Your task to perform on an android device: toggle show notifications on the lock screen Image 0: 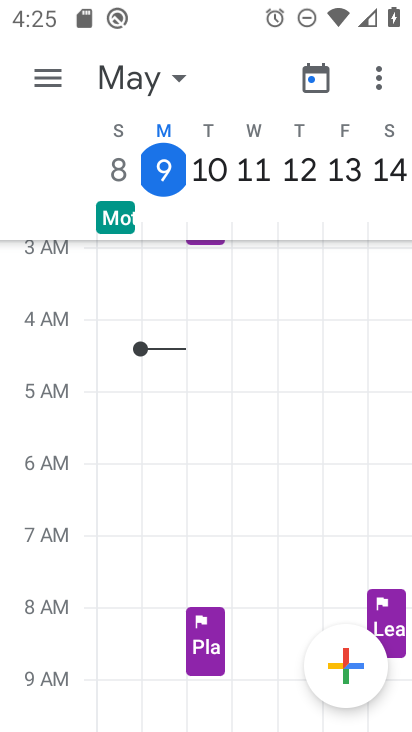
Step 0: press home button
Your task to perform on an android device: toggle show notifications on the lock screen Image 1: 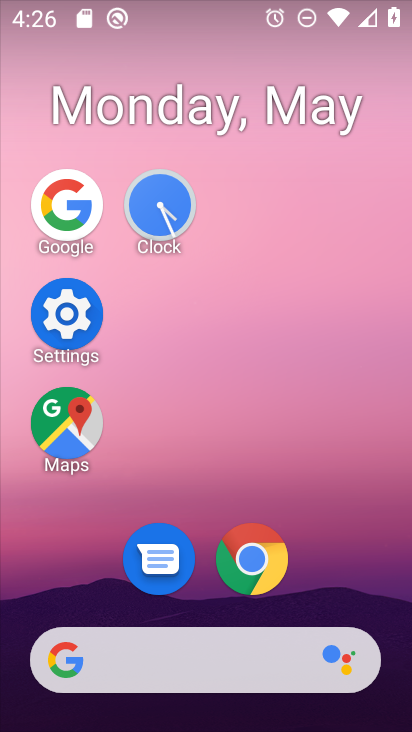
Step 1: click (67, 317)
Your task to perform on an android device: toggle show notifications on the lock screen Image 2: 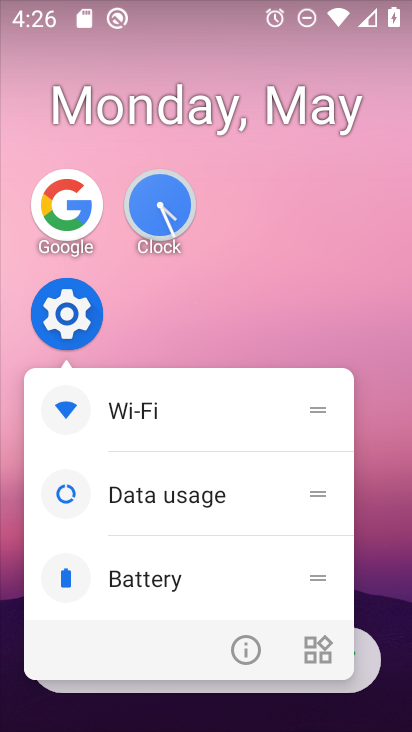
Step 2: click (64, 311)
Your task to perform on an android device: toggle show notifications on the lock screen Image 3: 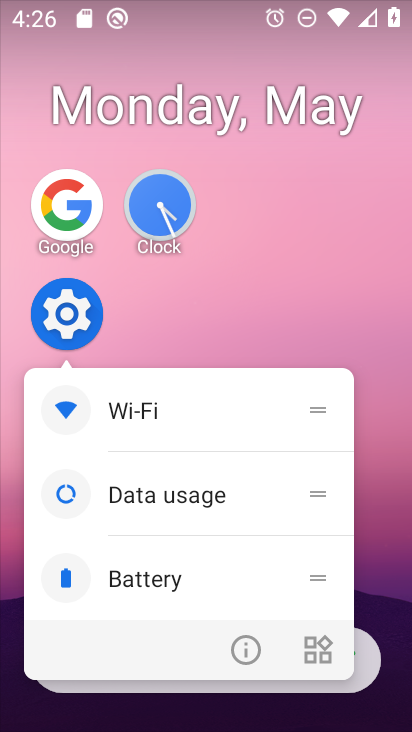
Step 3: click (71, 315)
Your task to perform on an android device: toggle show notifications on the lock screen Image 4: 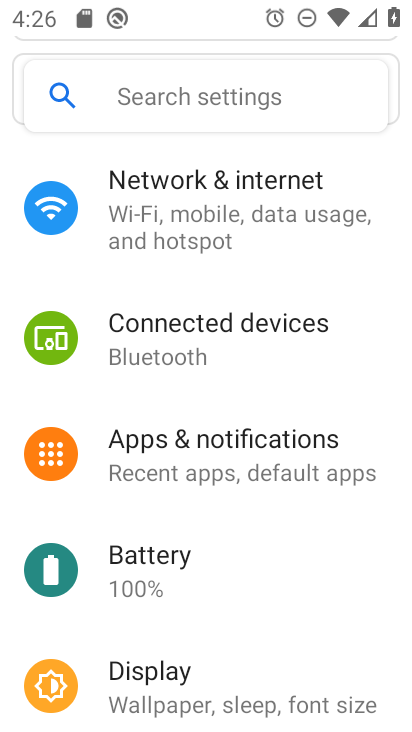
Step 4: click (265, 427)
Your task to perform on an android device: toggle show notifications on the lock screen Image 5: 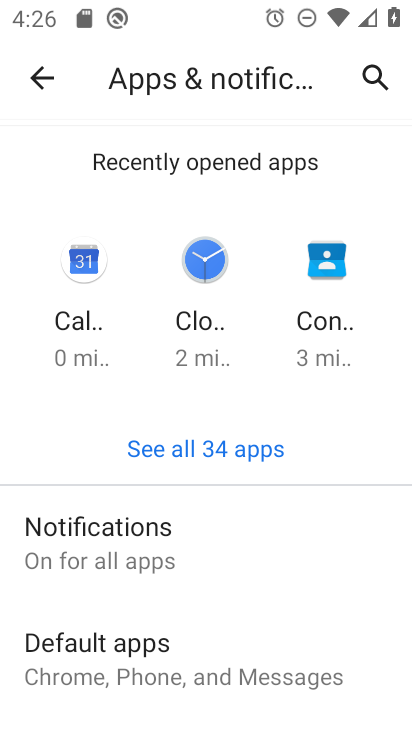
Step 5: click (198, 572)
Your task to perform on an android device: toggle show notifications on the lock screen Image 6: 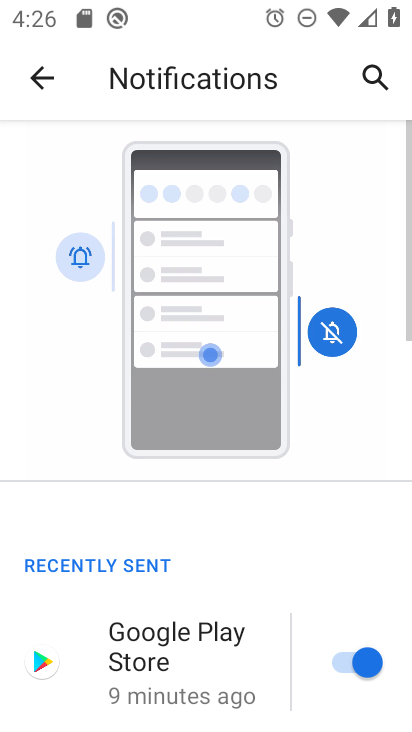
Step 6: drag from (217, 606) to (262, 107)
Your task to perform on an android device: toggle show notifications on the lock screen Image 7: 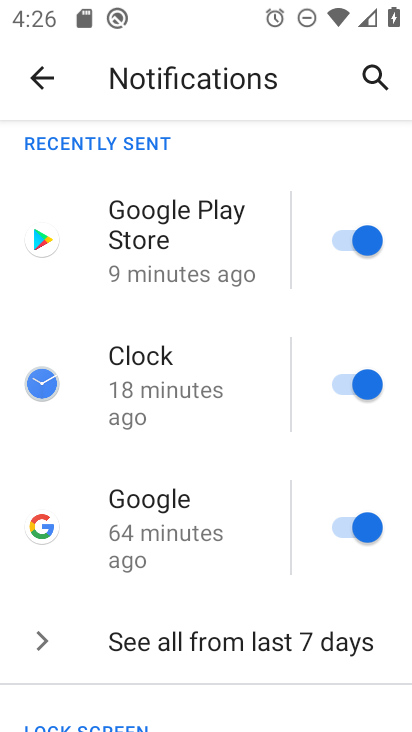
Step 7: drag from (205, 581) to (264, 65)
Your task to perform on an android device: toggle show notifications on the lock screen Image 8: 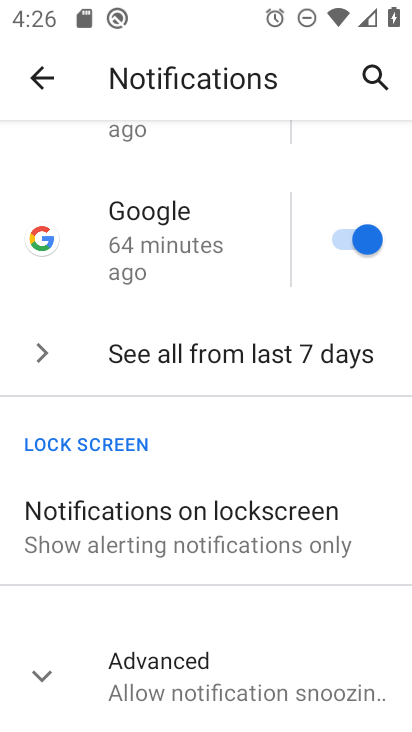
Step 8: click (202, 534)
Your task to perform on an android device: toggle show notifications on the lock screen Image 9: 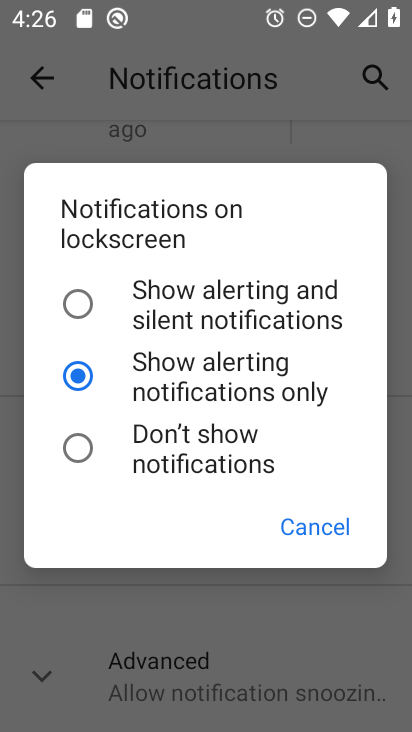
Step 9: click (221, 310)
Your task to perform on an android device: toggle show notifications on the lock screen Image 10: 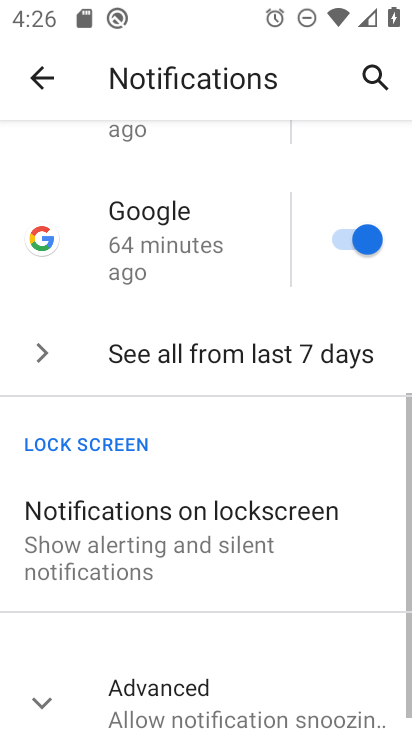
Step 10: task complete